Your task to perform on an android device: Open location settings Image 0: 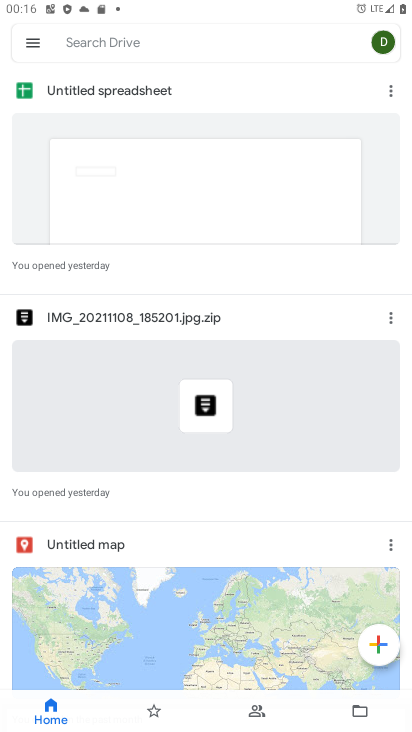
Step 0: press home button
Your task to perform on an android device: Open location settings Image 1: 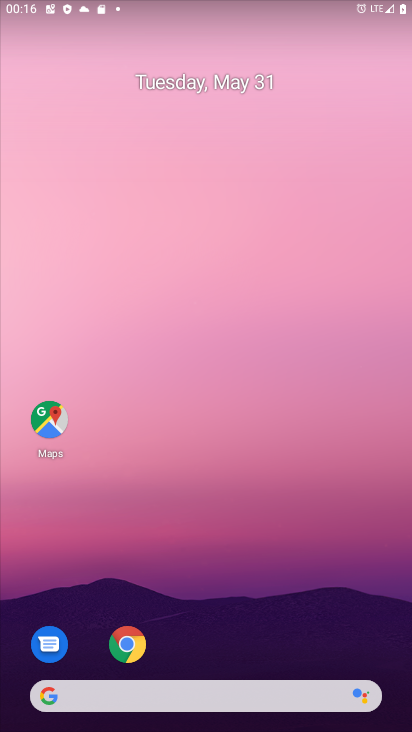
Step 1: drag from (336, 620) to (292, 139)
Your task to perform on an android device: Open location settings Image 2: 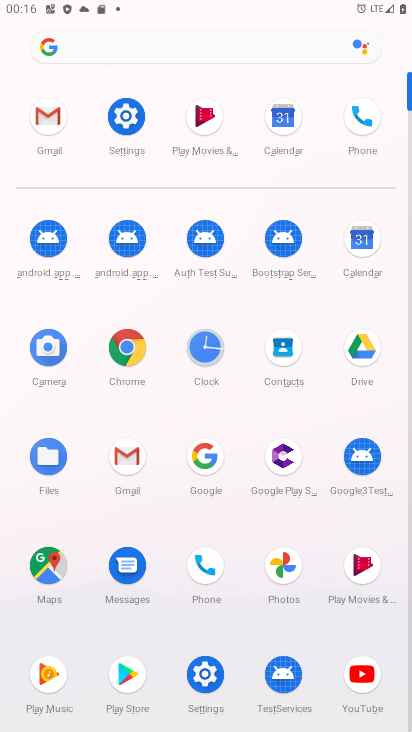
Step 2: click (204, 674)
Your task to perform on an android device: Open location settings Image 3: 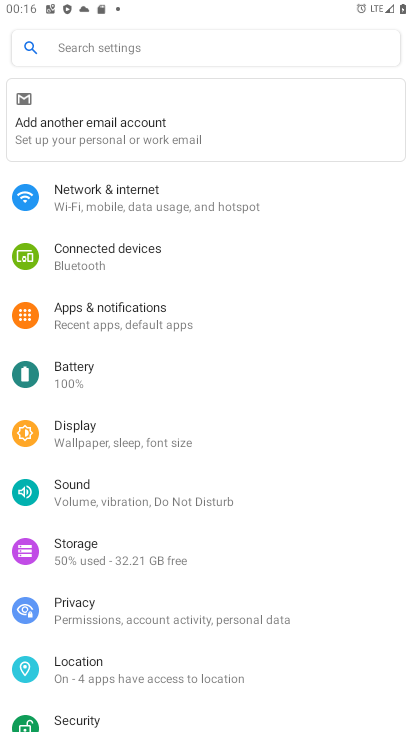
Step 3: click (99, 662)
Your task to perform on an android device: Open location settings Image 4: 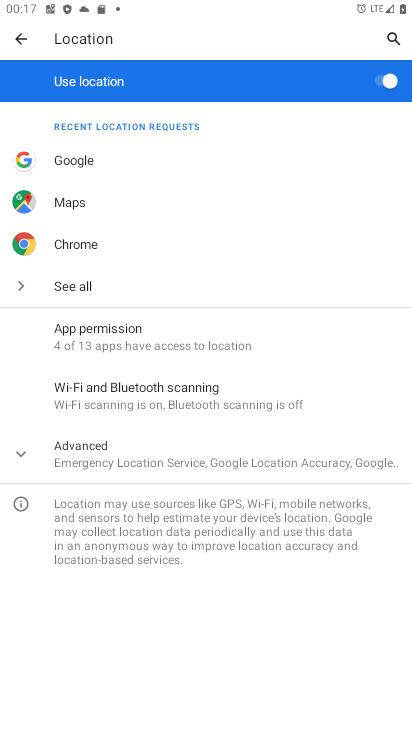
Step 4: click (24, 448)
Your task to perform on an android device: Open location settings Image 5: 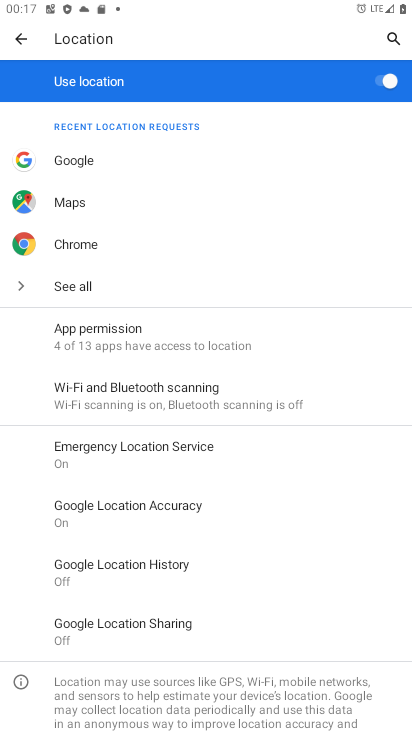
Step 5: task complete